Your task to perform on an android device: turn on the 12-hour format for clock Image 0: 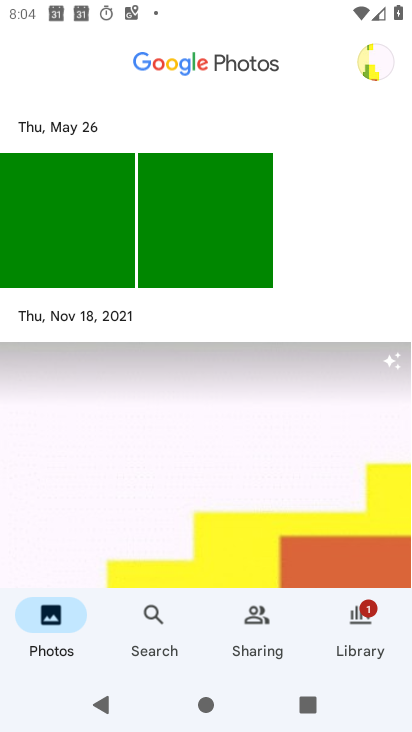
Step 0: press home button
Your task to perform on an android device: turn on the 12-hour format for clock Image 1: 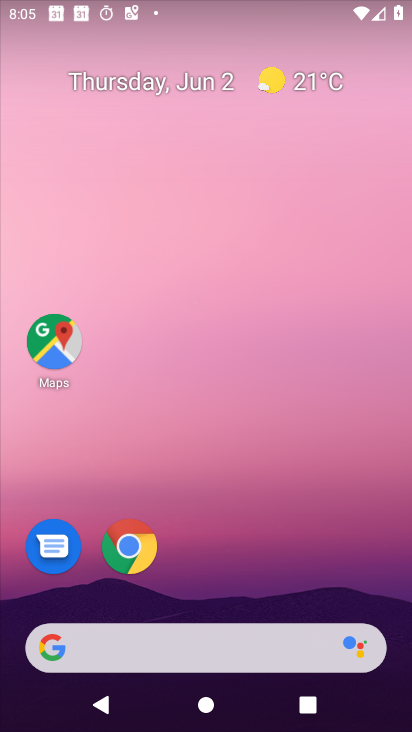
Step 1: drag from (310, 578) to (305, 166)
Your task to perform on an android device: turn on the 12-hour format for clock Image 2: 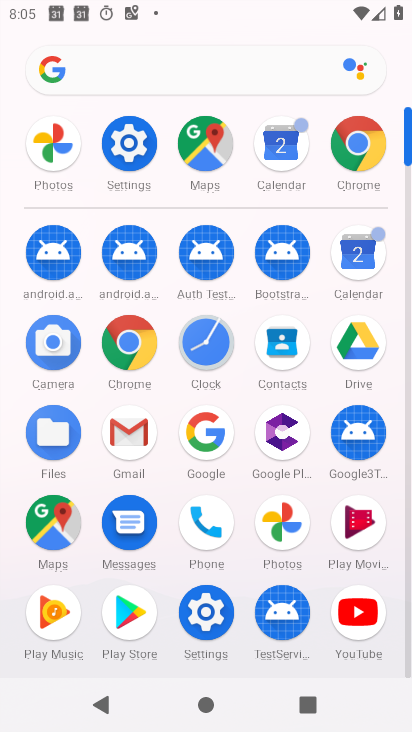
Step 2: click (190, 355)
Your task to perform on an android device: turn on the 12-hour format for clock Image 3: 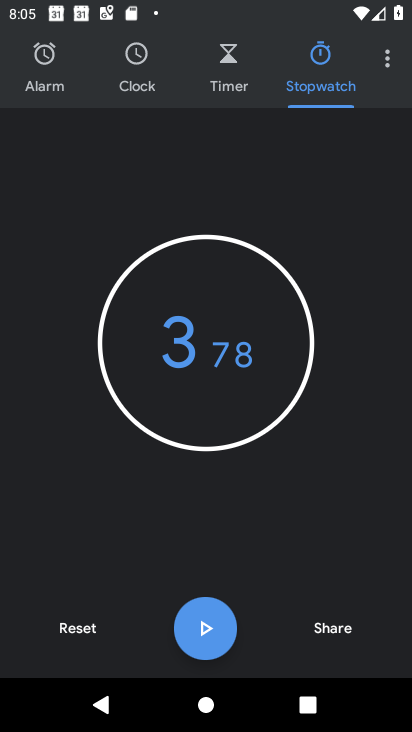
Step 3: click (390, 66)
Your task to perform on an android device: turn on the 12-hour format for clock Image 4: 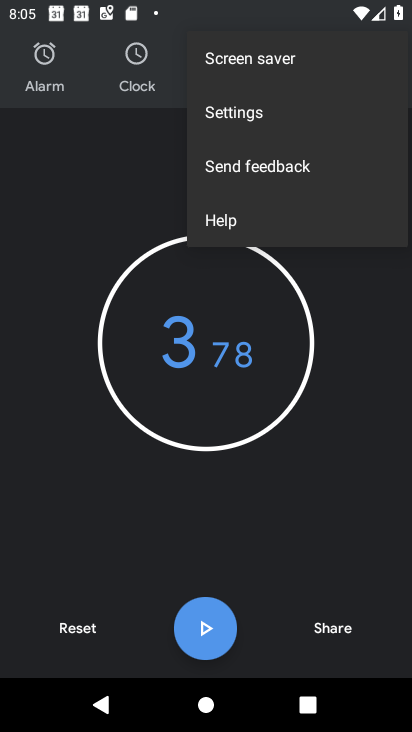
Step 4: click (257, 115)
Your task to perform on an android device: turn on the 12-hour format for clock Image 5: 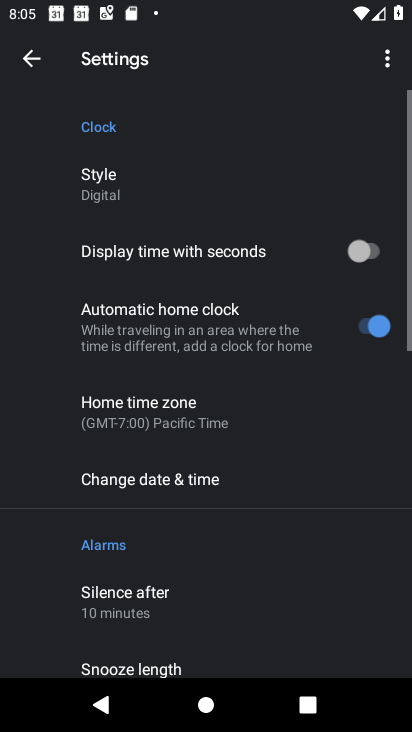
Step 5: click (235, 461)
Your task to perform on an android device: turn on the 12-hour format for clock Image 6: 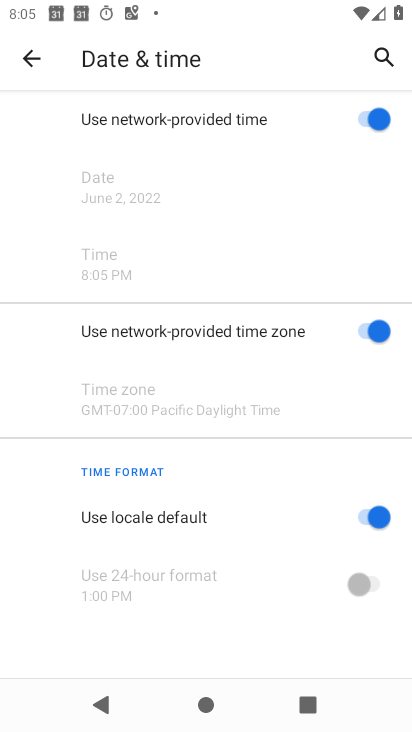
Step 6: task complete